Your task to perform on an android device: Go to accessibility settings Image 0: 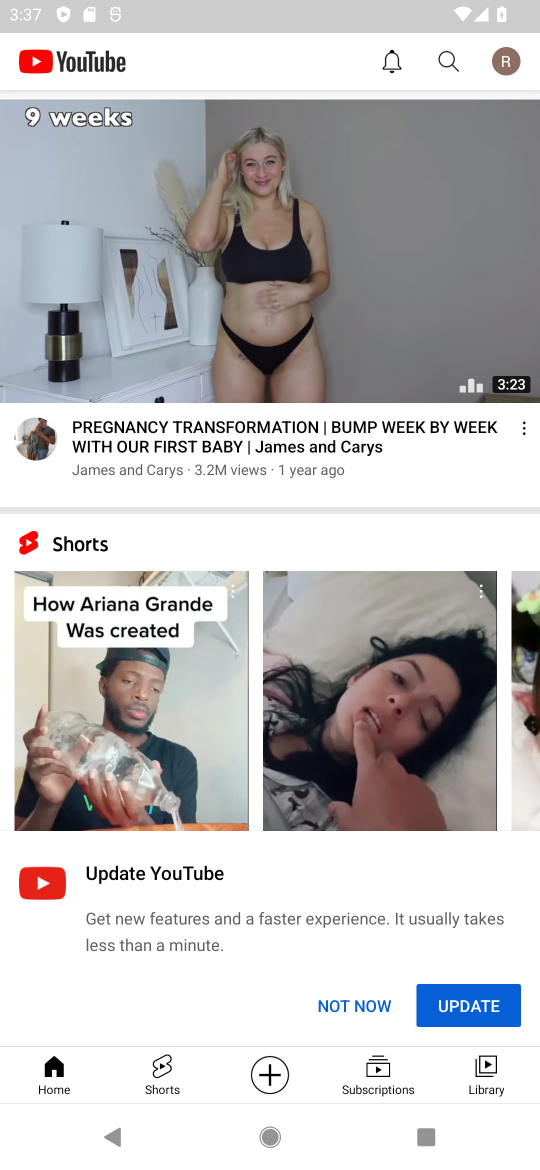
Step 0: press home button
Your task to perform on an android device: Go to accessibility settings Image 1: 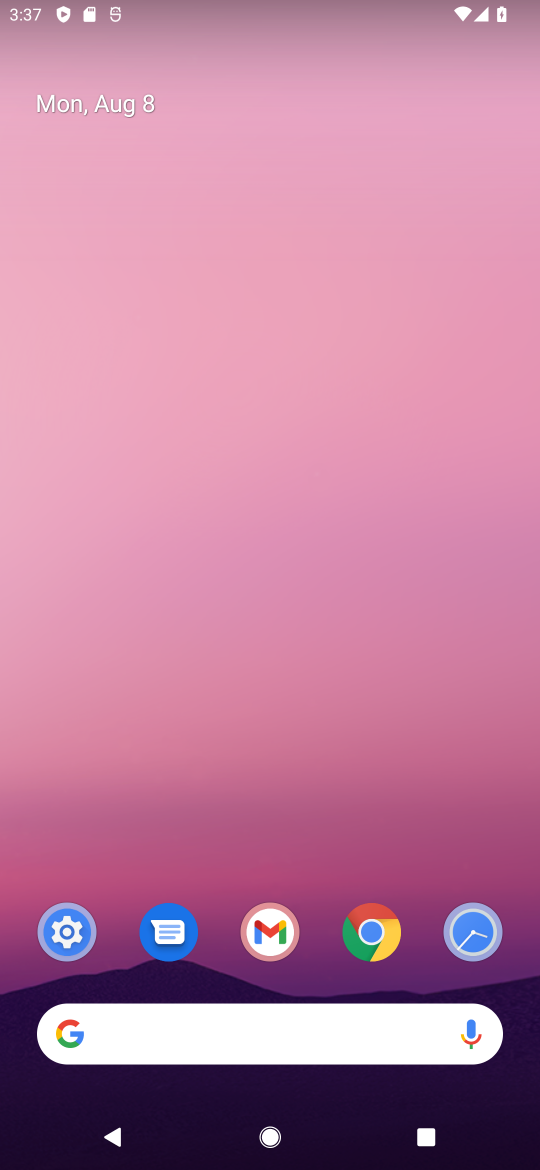
Step 1: click (43, 930)
Your task to perform on an android device: Go to accessibility settings Image 2: 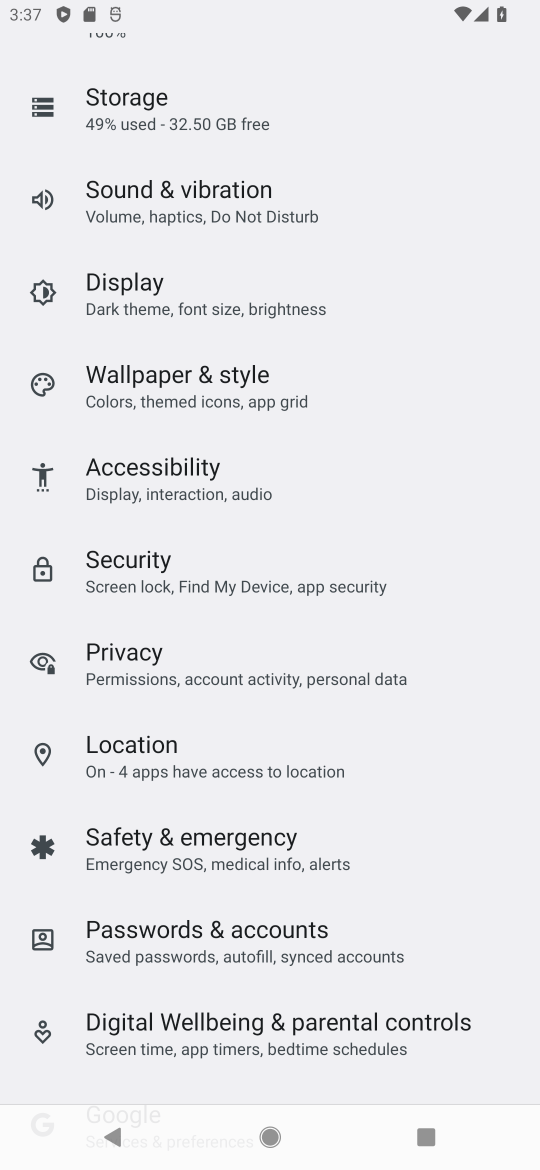
Step 2: click (190, 482)
Your task to perform on an android device: Go to accessibility settings Image 3: 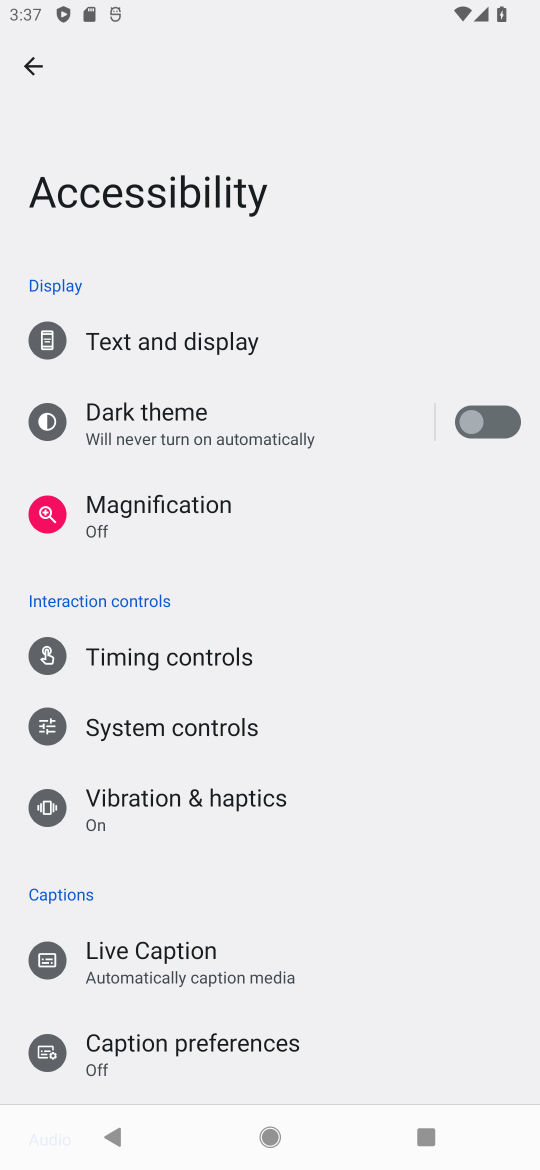
Step 3: task complete